Your task to perform on an android device: Go to Yahoo.com Image 0: 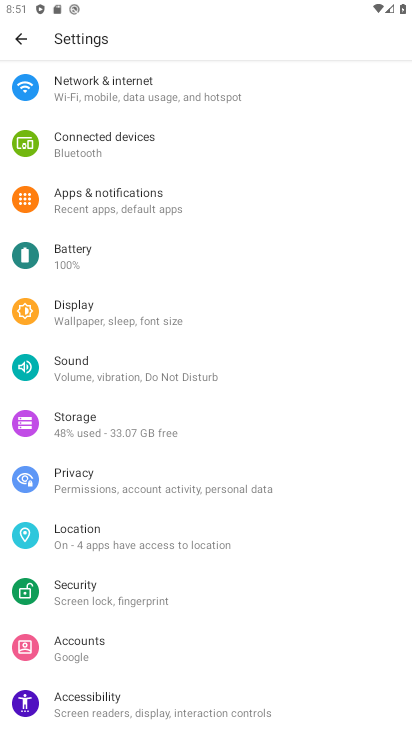
Step 0: press home button
Your task to perform on an android device: Go to Yahoo.com Image 1: 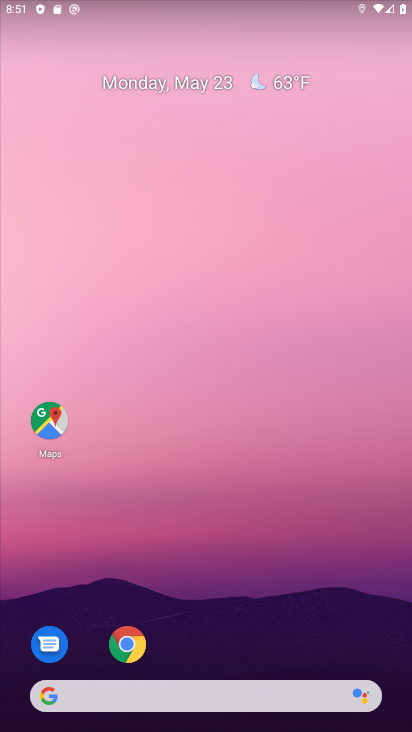
Step 1: click (124, 637)
Your task to perform on an android device: Go to Yahoo.com Image 2: 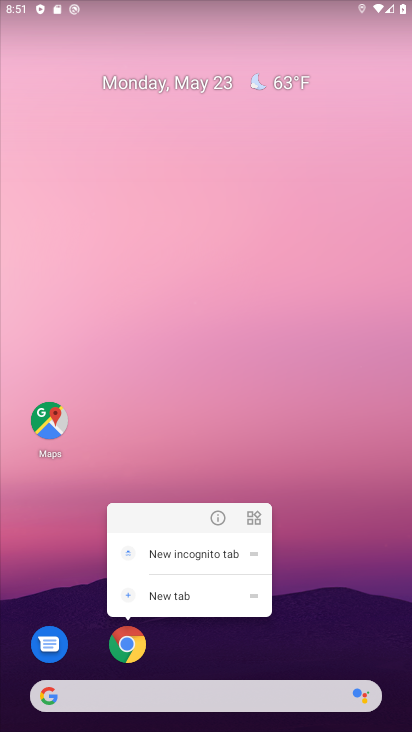
Step 2: click (124, 636)
Your task to perform on an android device: Go to Yahoo.com Image 3: 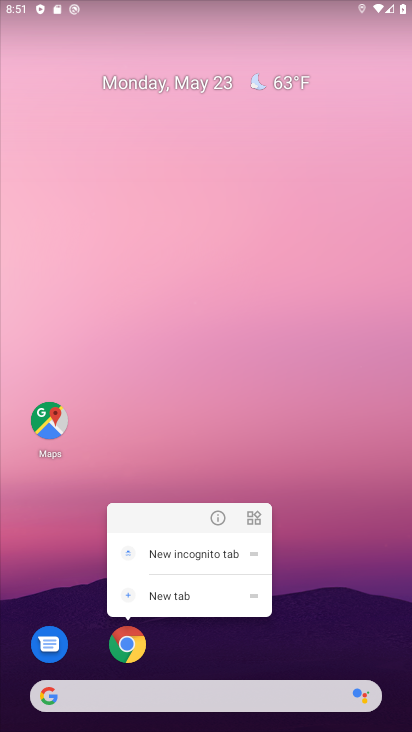
Step 3: click (122, 636)
Your task to perform on an android device: Go to Yahoo.com Image 4: 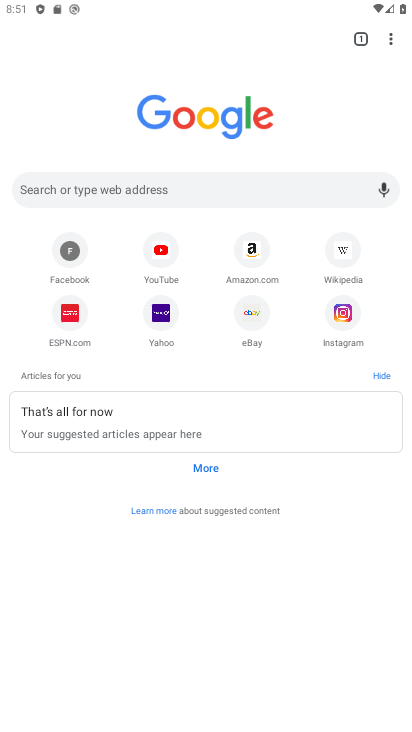
Step 4: click (155, 310)
Your task to perform on an android device: Go to Yahoo.com Image 5: 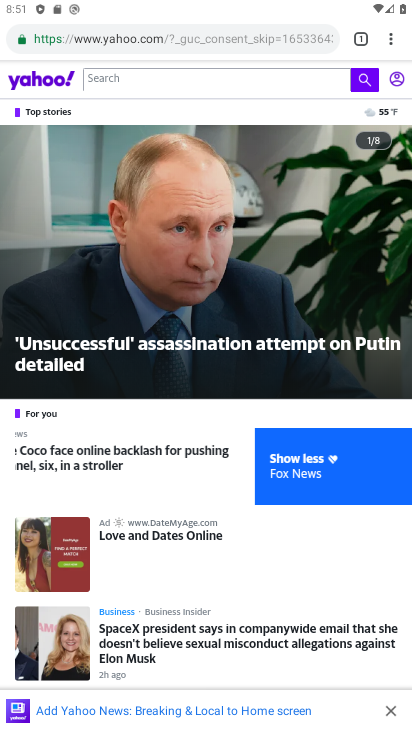
Step 5: task complete